Your task to perform on an android device: delete browsing data in the chrome app Image 0: 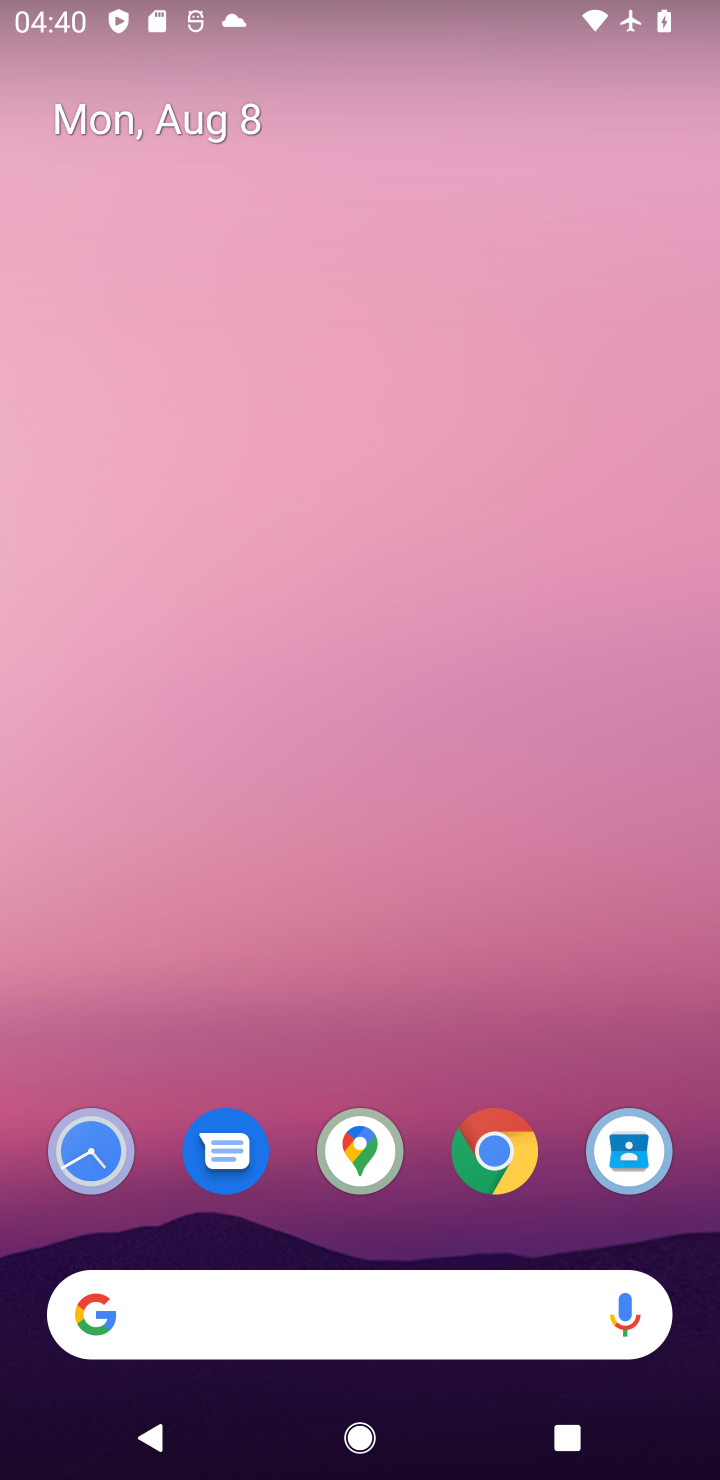
Step 0: click (528, 1160)
Your task to perform on an android device: delete browsing data in the chrome app Image 1: 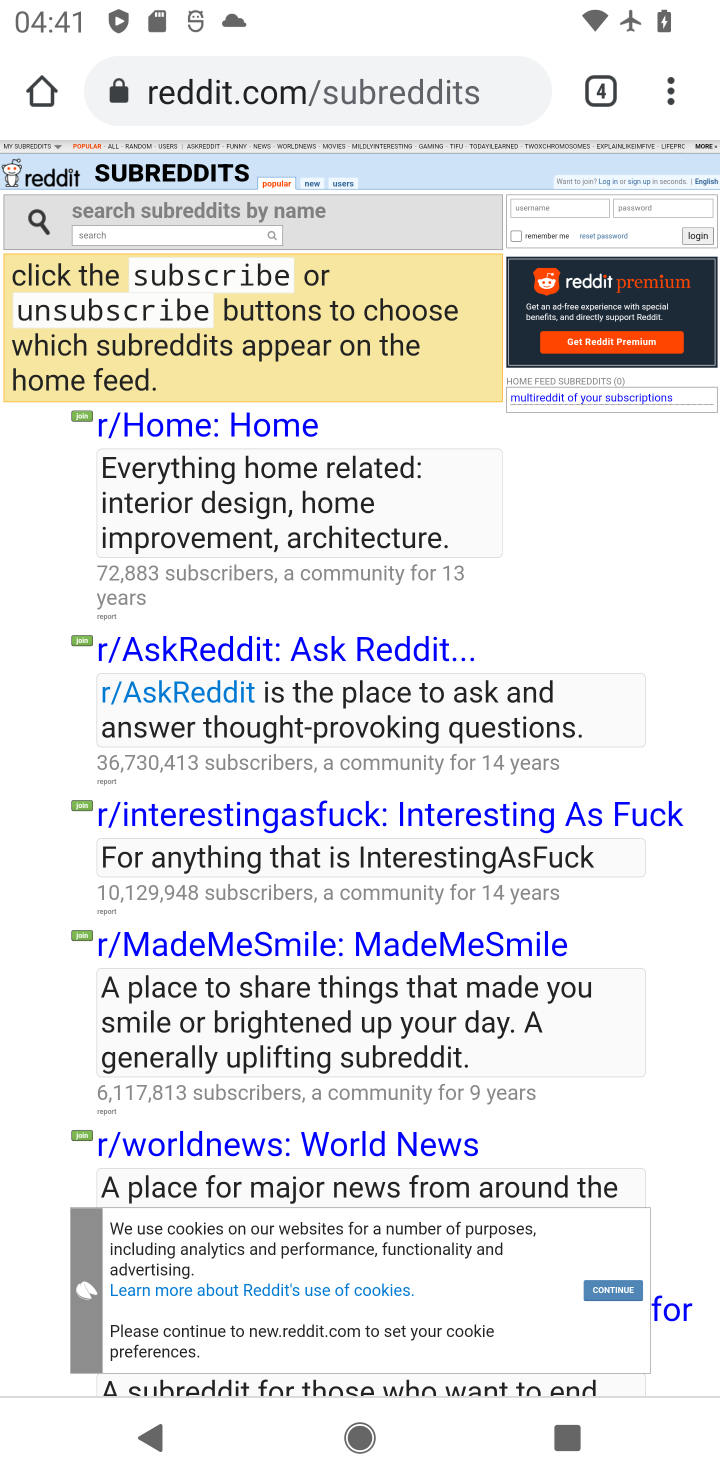
Step 1: click (665, 94)
Your task to perform on an android device: delete browsing data in the chrome app Image 2: 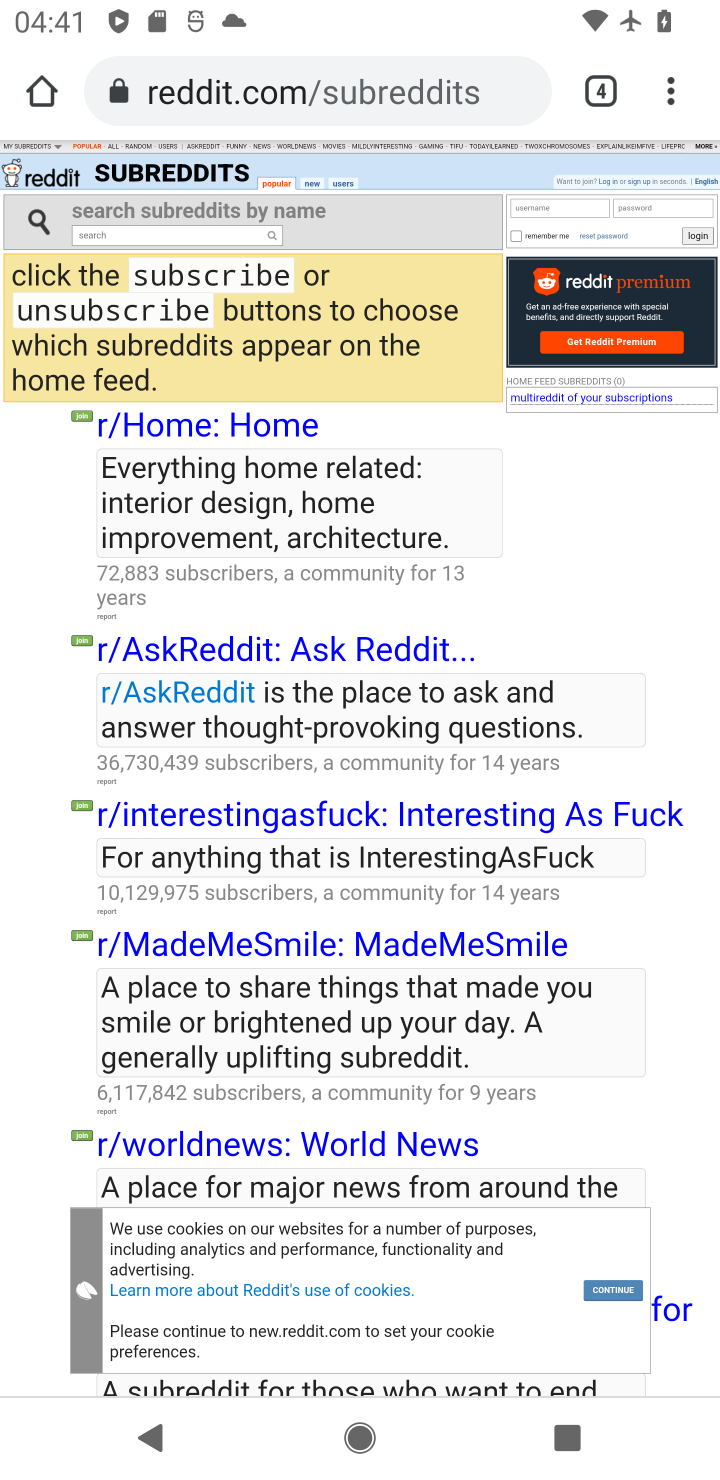
Step 2: click (664, 106)
Your task to perform on an android device: delete browsing data in the chrome app Image 3: 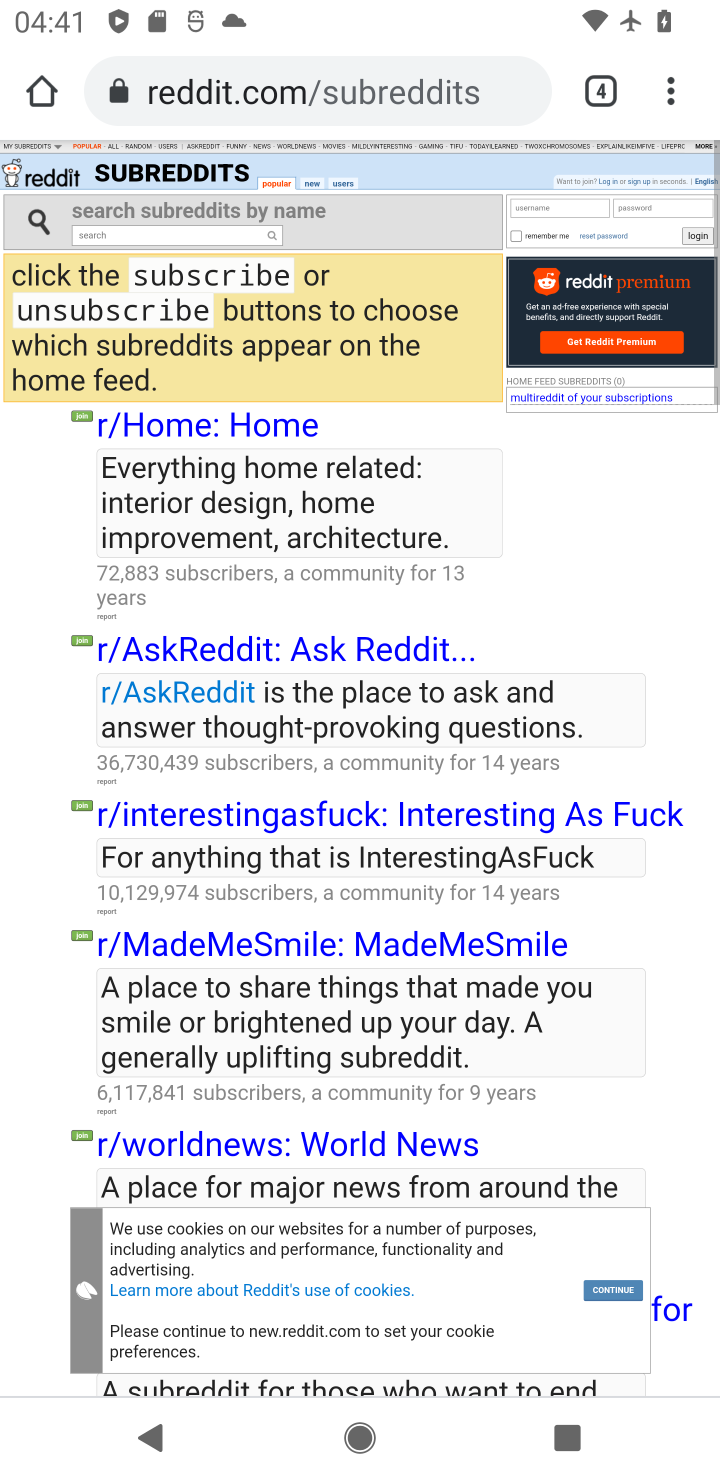
Step 3: click (664, 106)
Your task to perform on an android device: delete browsing data in the chrome app Image 4: 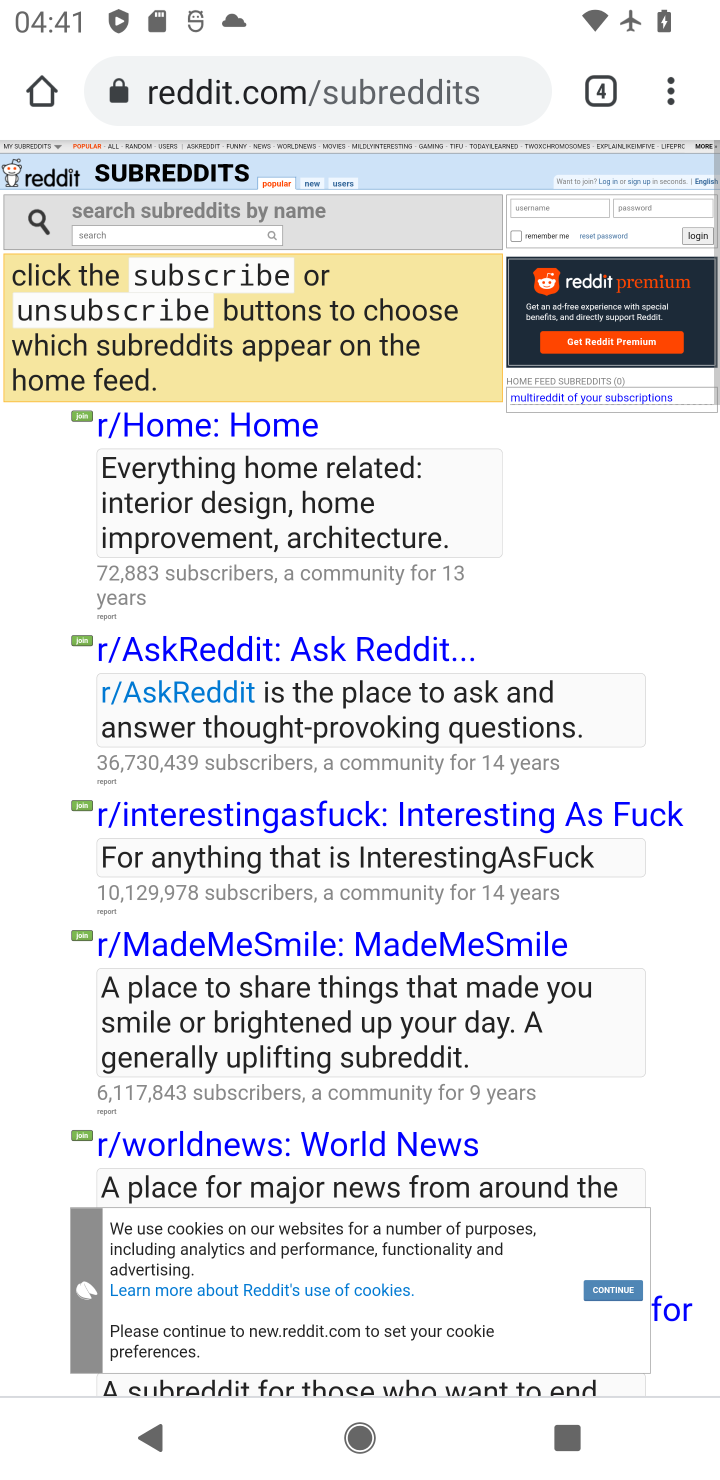
Step 4: drag from (664, 106) to (463, 489)
Your task to perform on an android device: delete browsing data in the chrome app Image 5: 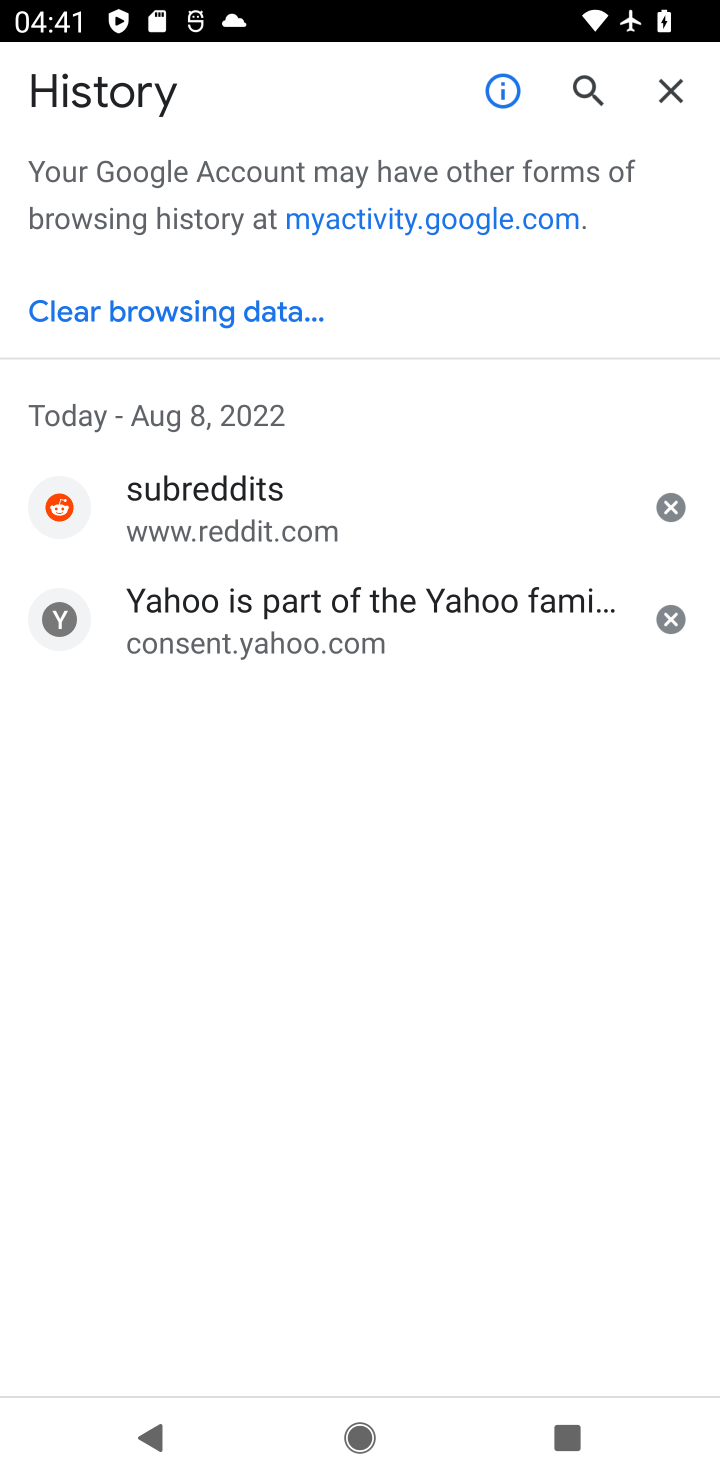
Step 5: click (245, 297)
Your task to perform on an android device: delete browsing data in the chrome app Image 6: 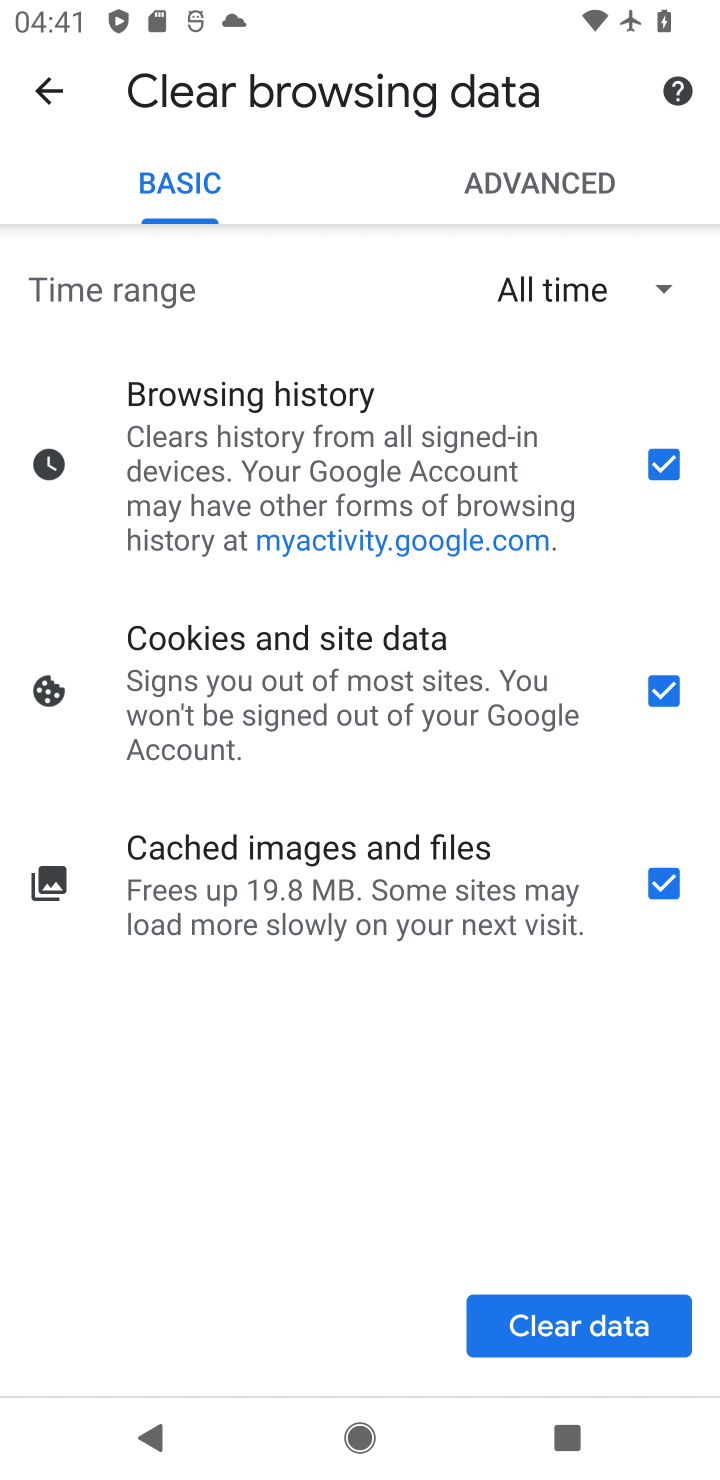
Step 6: click (605, 1314)
Your task to perform on an android device: delete browsing data in the chrome app Image 7: 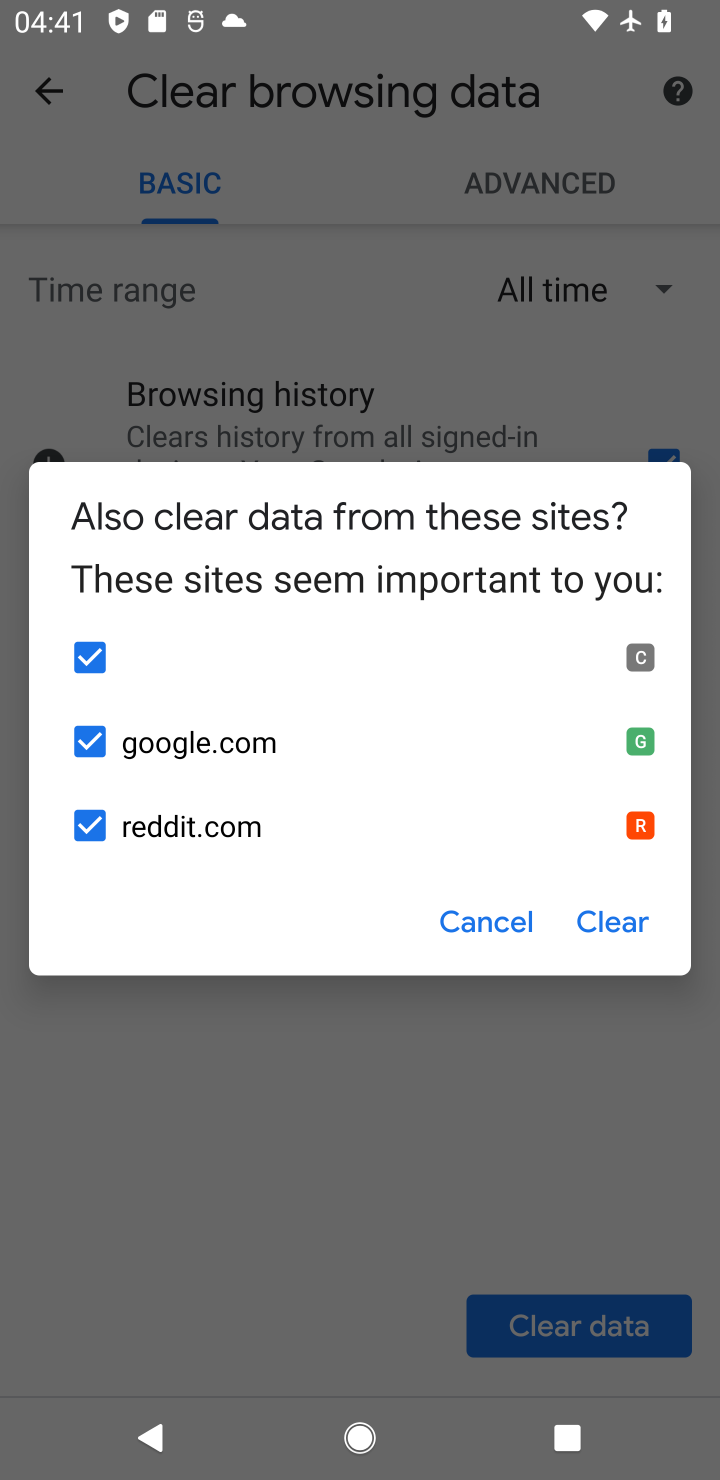
Step 7: click (615, 914)
Your task to perform on an android device: delete browsing data in the chrome app Image 8: 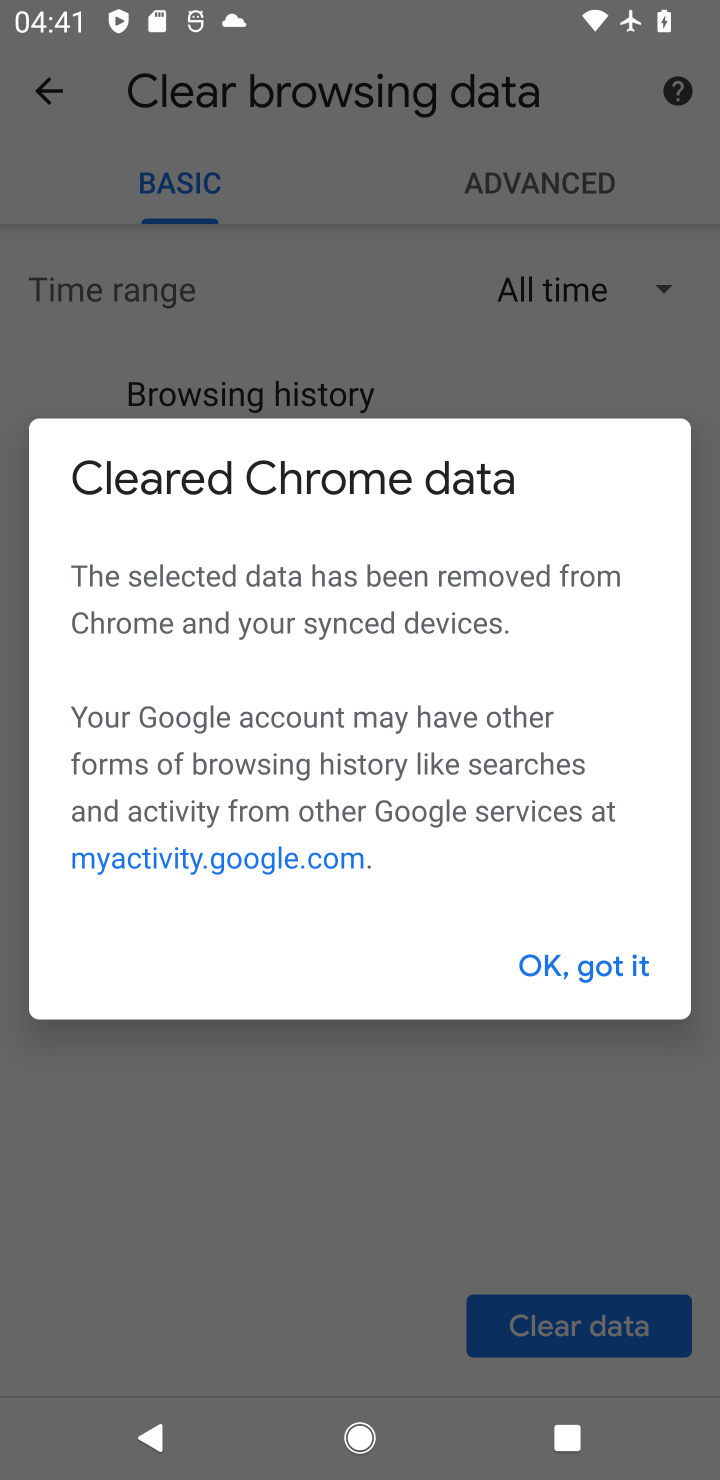
Step 8: click (575, 977)
Your task to perform on an android device: delete browsing data in the chrome app Image 9: 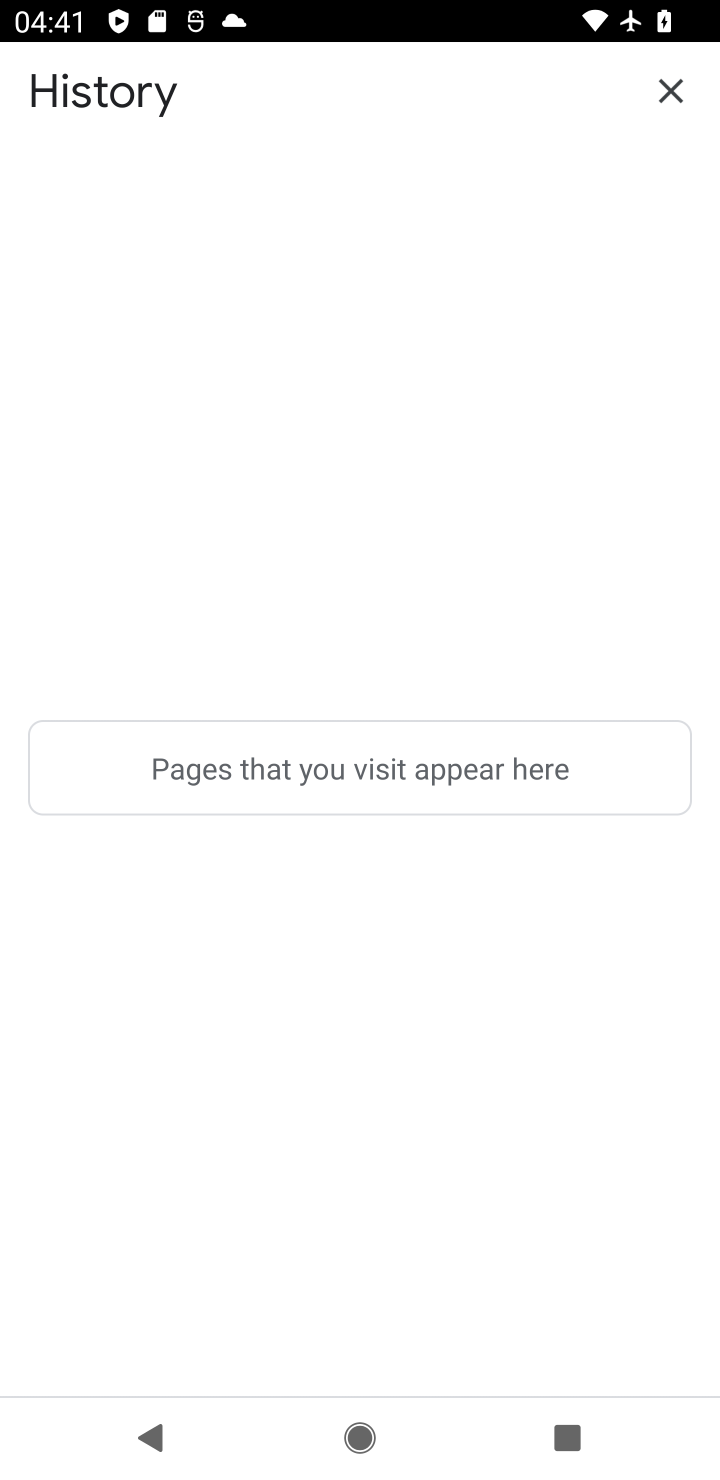
Step 9: task complete